Your task to perform on an android device: open a new tab in the chrome app Image 0: 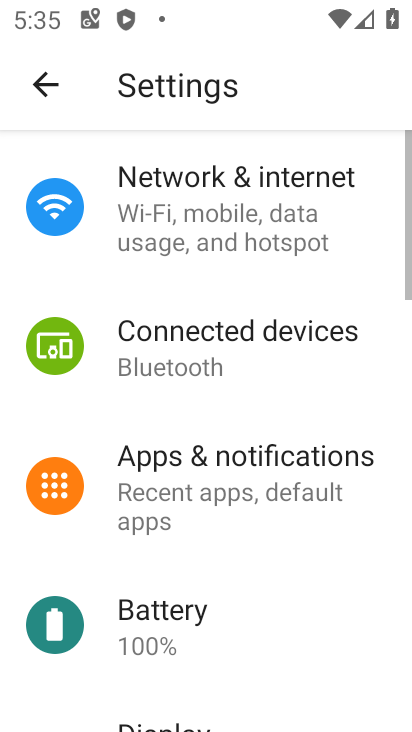
Step 0: press home button
Your task to perform on an android device: open a new tab in the chrome app Image 1: 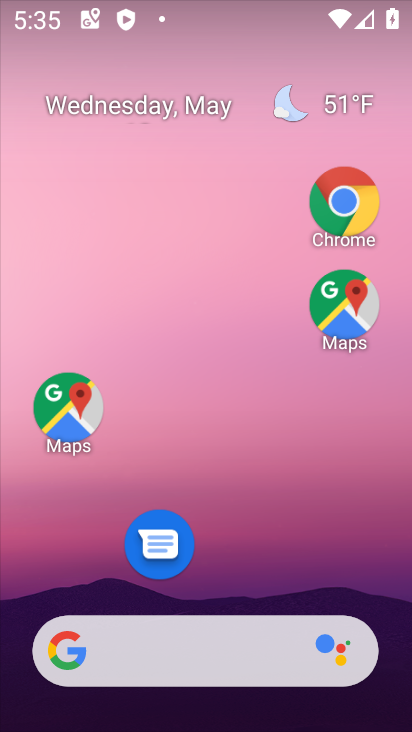
Step 1: click (341, 230)
Your task to perform on an android device: open a new tab in the chrome app Image 2: 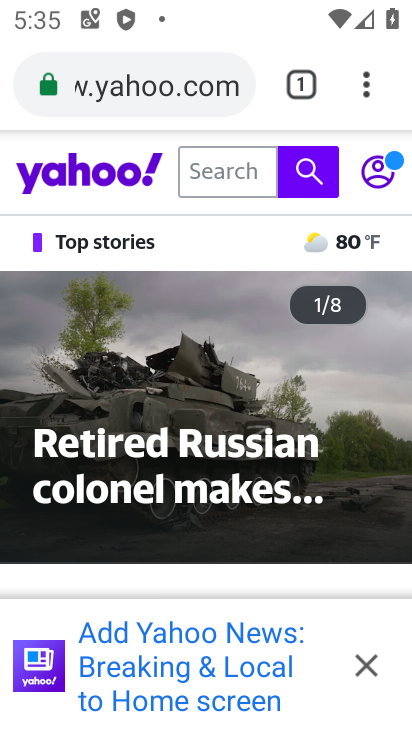
Step 2: click (296, 81)
Your task to perform on an android device: open a new tab in the chrome app Image 3: 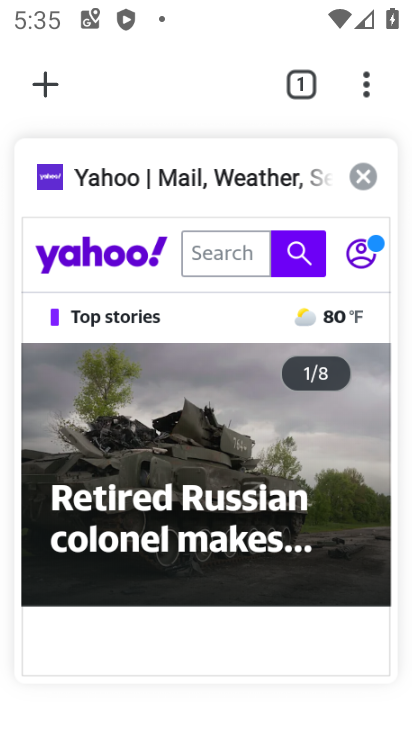
Step 3: click (49, 85)
Your task to perform on an android device: open a new tab in the chrome app Image 4: 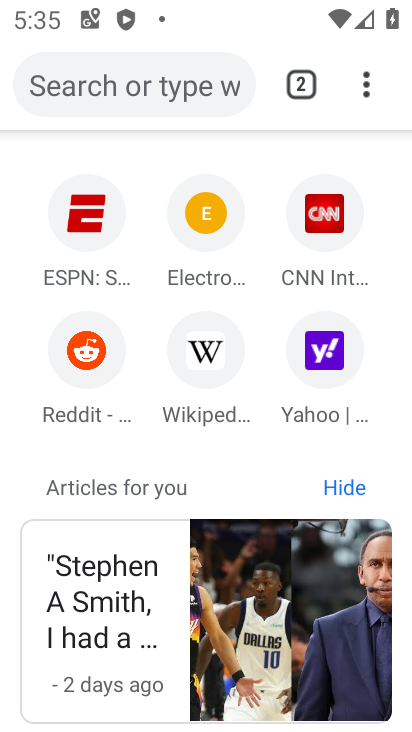
Step 4: task complete